Your task to perform on an android device: show emergency info Image 0: 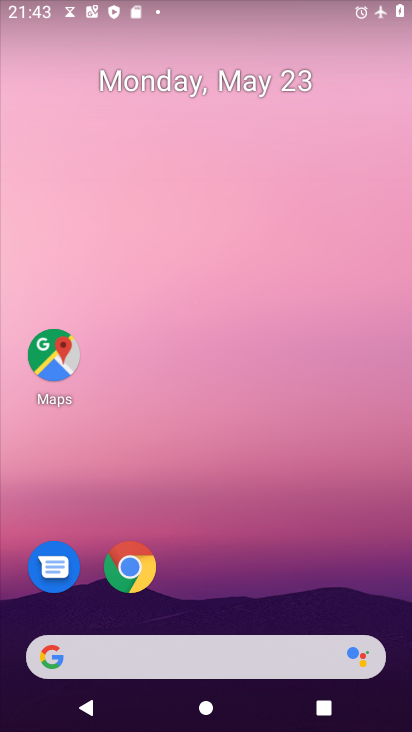
Step 0: drag from (234, 614) to (275, 290)
Your task to perform on an android device: show emergency info Image 1: 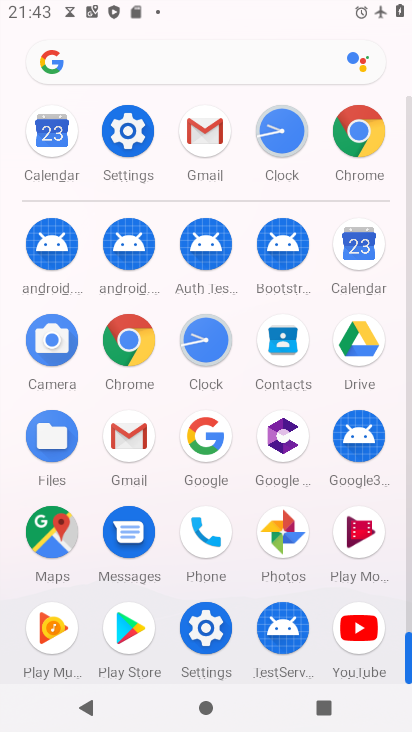
Step 1: click (131, 135)
Your task to perform on an android device: show emergency info Image 2: 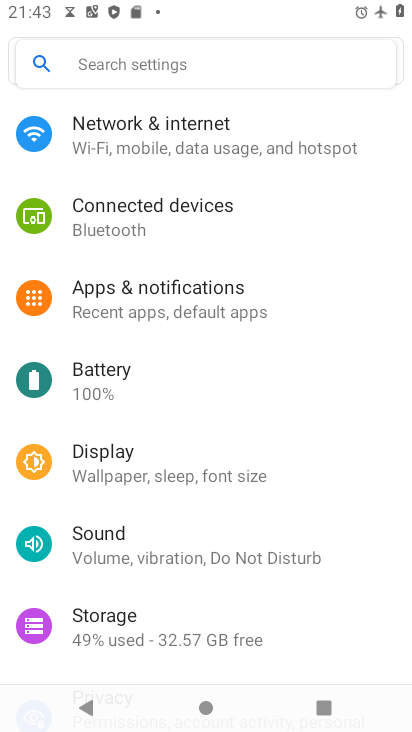
Step 2: drag from (243, 595) to (315, 134)
Your task to perform on an android device: show emergency info Image 3: 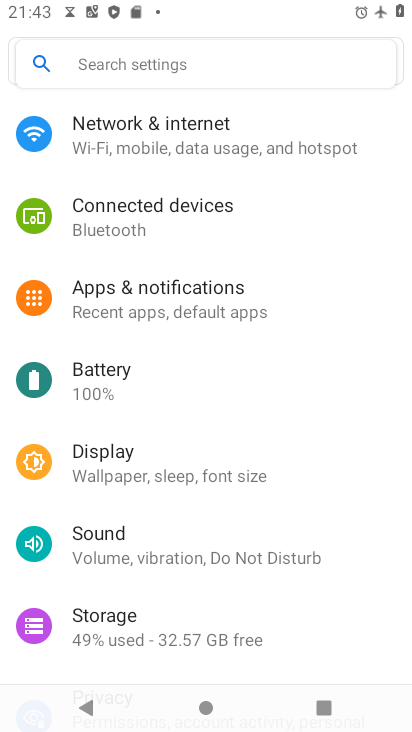
Step 3: drag from (275, 250) to (331, 3)
Your task to perform on an android device: show emergency info Image 4: 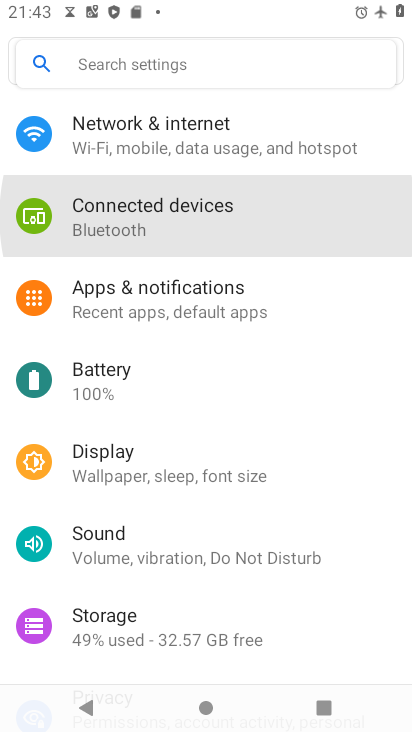
Step 4: click (309, 102)
Your task to perform on an android device: show emergency info Image 5: 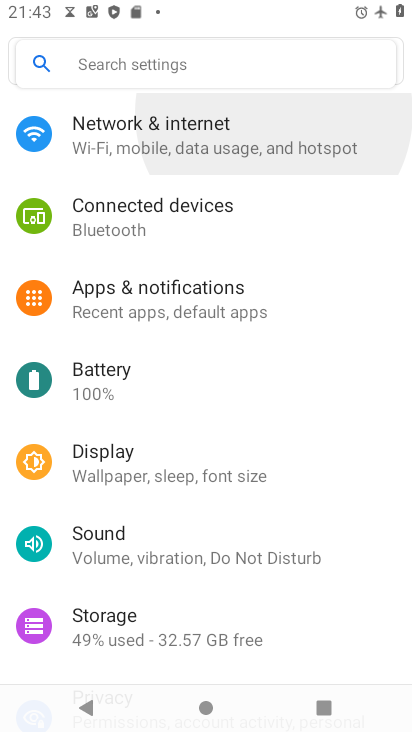
Step 5: drag from (213, 468) to (264, 193)
Your task to perform on an android device: show emergency info Image 6: 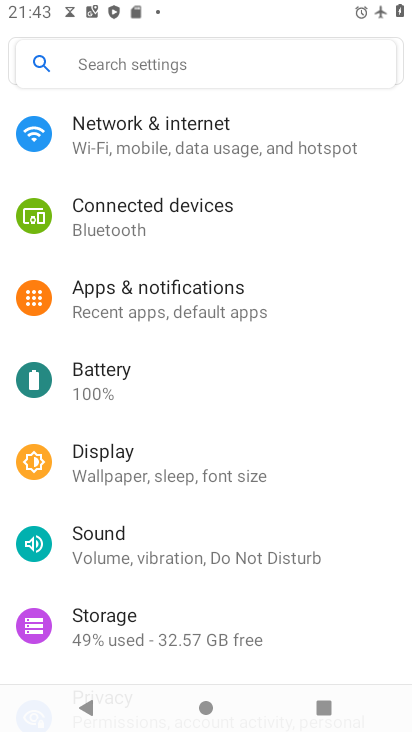
Step 6: drag from (221, 403) to (306, 205)
Your task to perform on an android device: show emergency info Image 7: 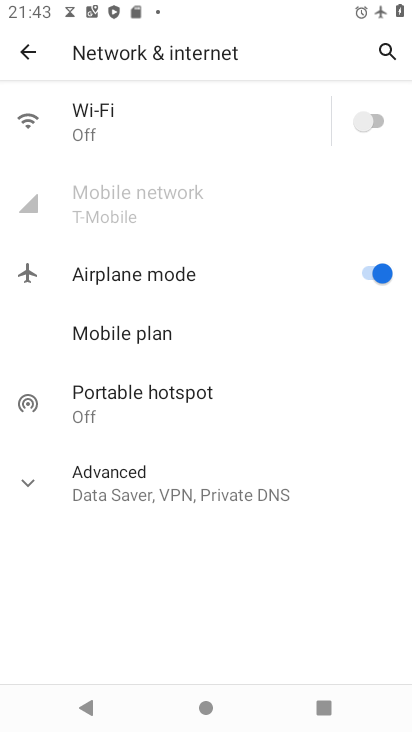
Step 7: drag from (249, 352) to (270, 221)
Your task to perform on an android device: show emergency info Image 8: 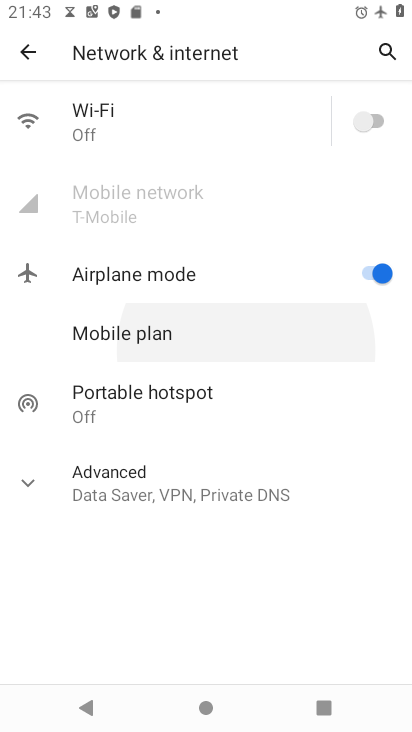
Step 8: drag from (253, 443) to (302, 209)
Your task to perform on an android device: show emergency info Image 9: 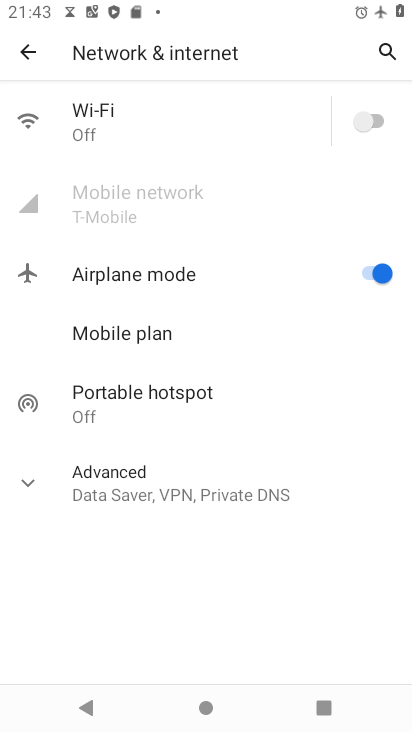
Step 9: click (33, 61)
Your task to perform on an android device: show emergency info Image 10: 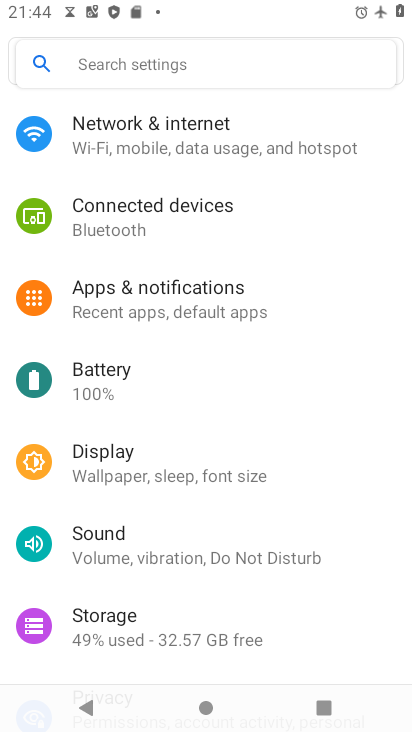
Step 10: drag from (202, 548) to (261, 187)
Your task to perform on an android device: show emergency info Image 11: 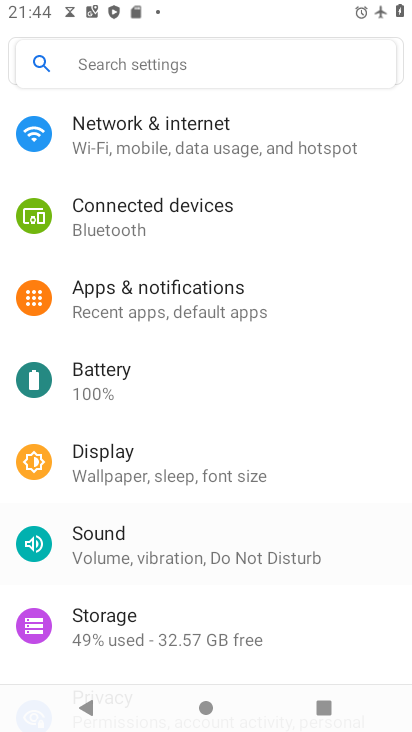
Step 11: drag from (233, 491) to (272, 318)
Your task to perform on an android device: show emergency info Image 12: 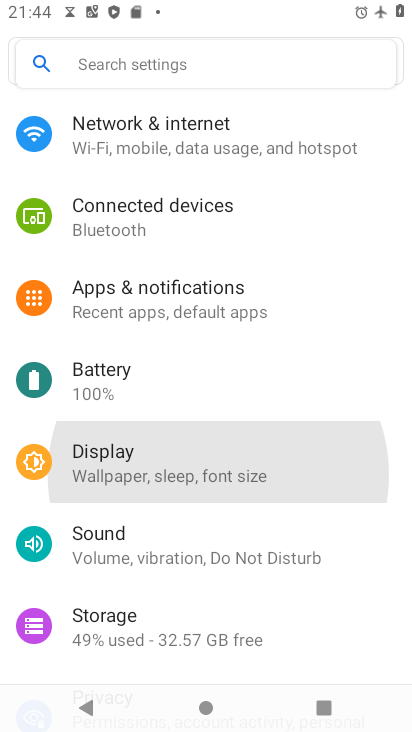
Step 12: click (254, 575)
Your task to perform on an android device: show emergency info Image 13: 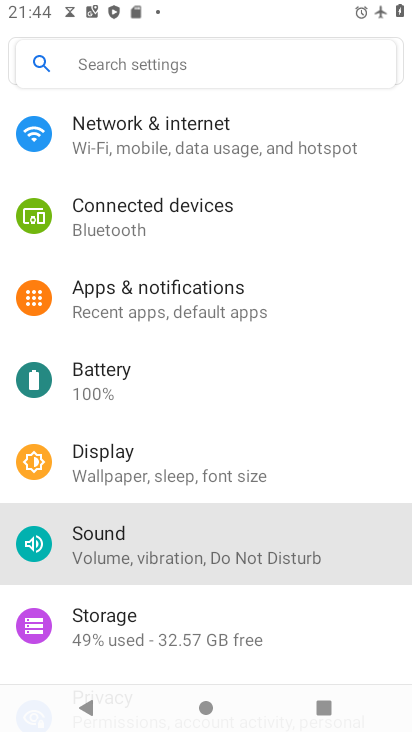
Step 13: click (254, 565)
Your task to perform on an android device: show emergency info Image 14: 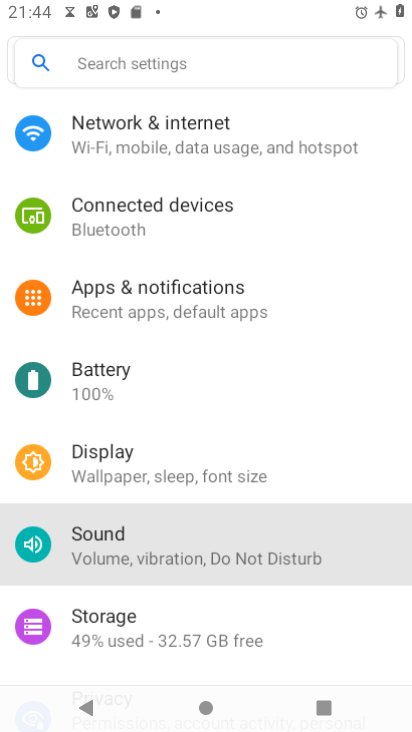
Step 14: drag from (212, 695) to (234, 463)
Your task to perform on an android device: show emergency info Image 15: 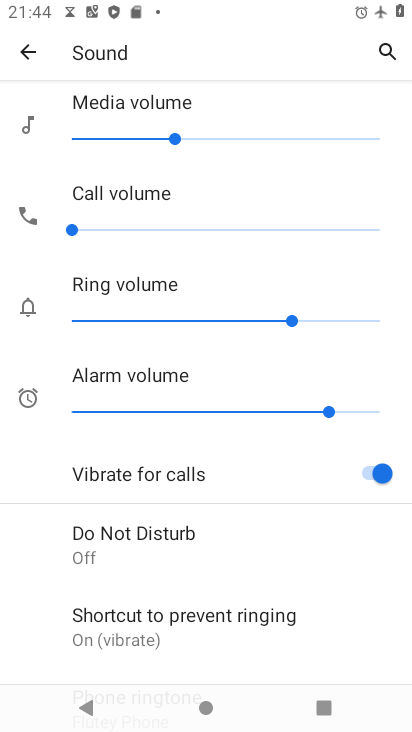
Step 15: click (31, 42)
Your task to perform on an android device: show emergency info Image 16: 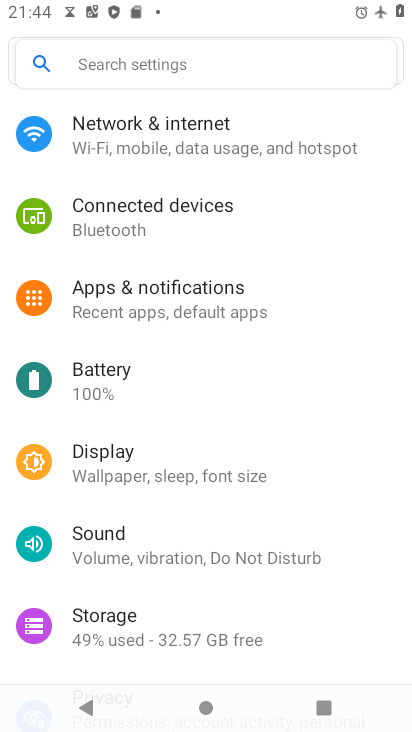
Step 16: drag from (265, 611) to (266, 339)
Your task to perform on an android device: show emergency info Image 17: 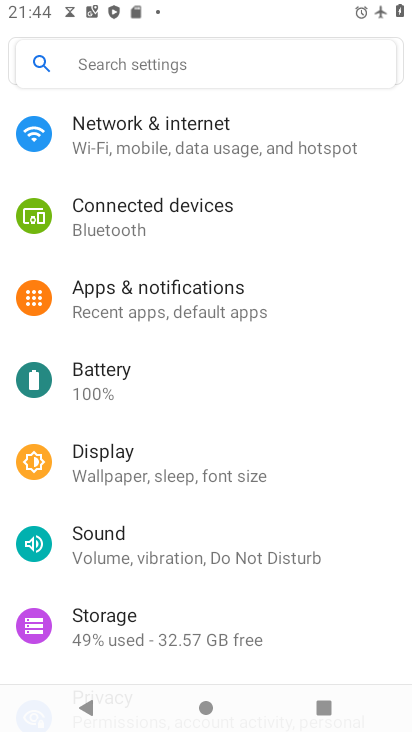
Step 17: click (232, 553)
Your task to perform on an android device: show emergency info Image 18: 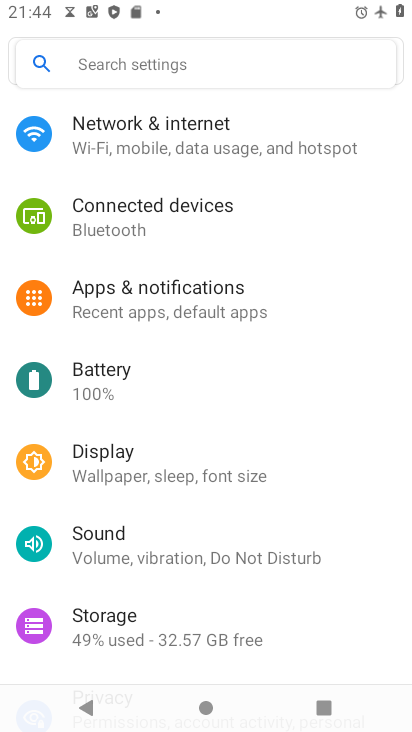
Step 18: drag from (215, 707) to (225, 401)
Your task to perform on an android device: show emergency info Image 19: 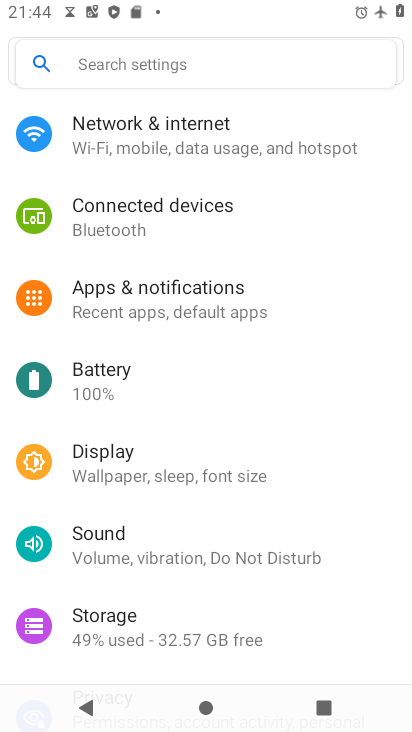
Step 19: drag from (191, 617) to (234, 305)
Your task to perform on an android device: show emergency info Image 20: 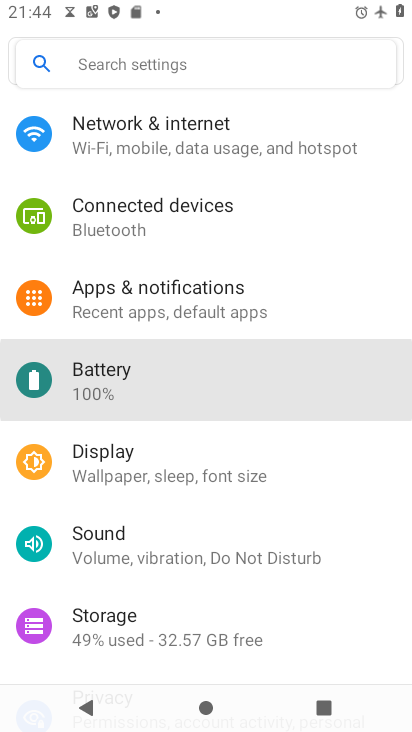
Step 20: drag from (240, 544) to (246, 360)
Your task to perform on an android device: show emergency info Image 21: 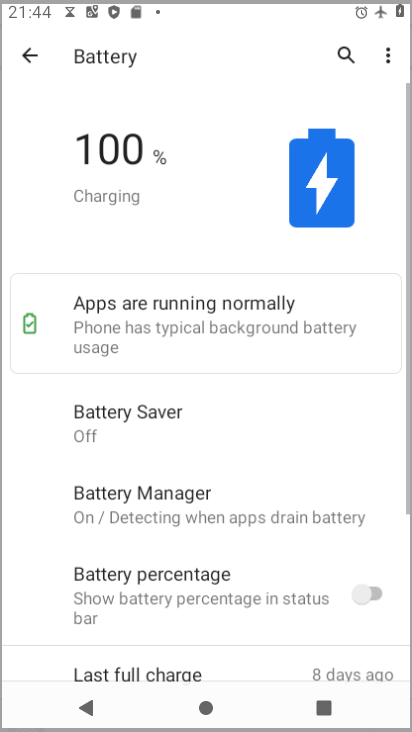
Step 21: drag from (216, 608) to (255, 312)
Your task to perform on an android device: show emergency info Image 22: 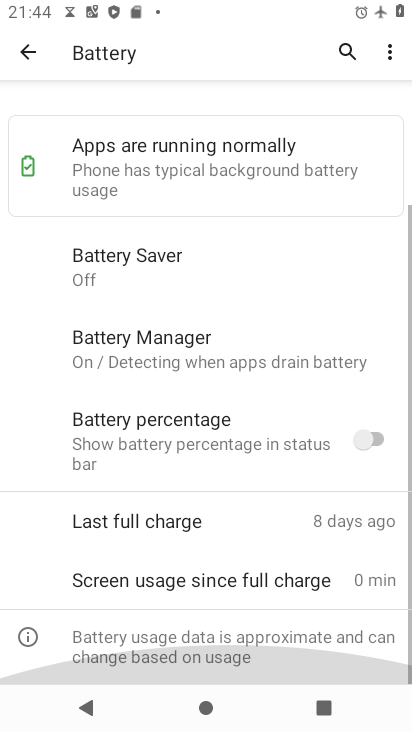
Step 22: drag from (203, 501) to (213, 335)
Your task to perform on an android device: show emergency info Image 23: 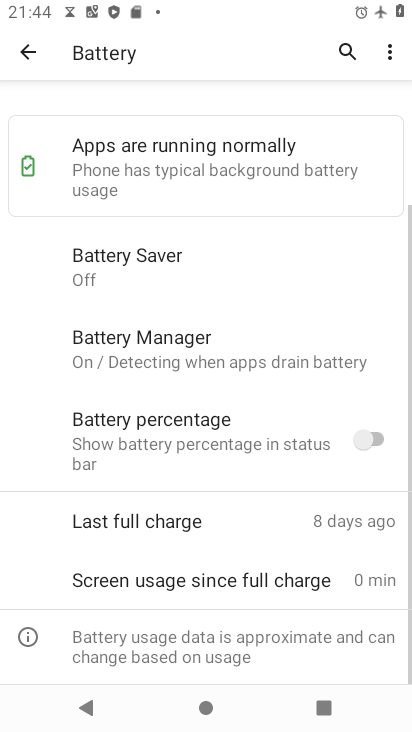
Step 23: click (33, 57)
Your task to perform on an android device: show emergency info Image 24: 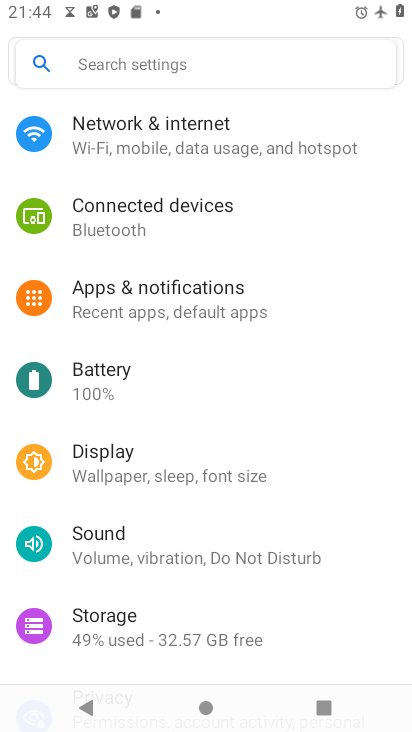
Step 24: drag from (273, 606) to (281, 243)
Your task to perform on an android device: show emergency info Image 25: 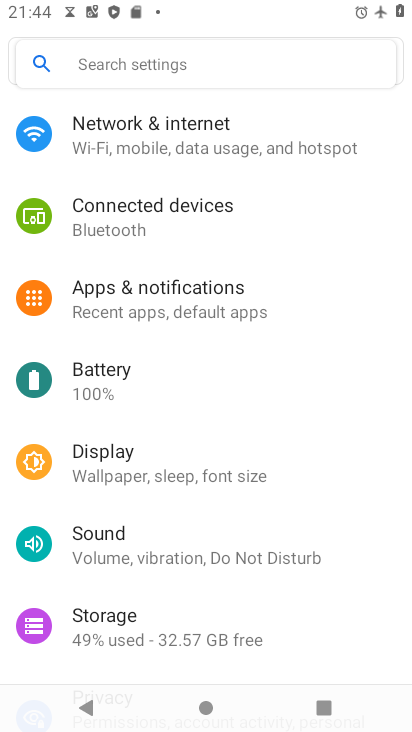
Step 25: drag from (235, 519) to (285, 219)
Your task to perform on an android device: show emergency info Image 26: 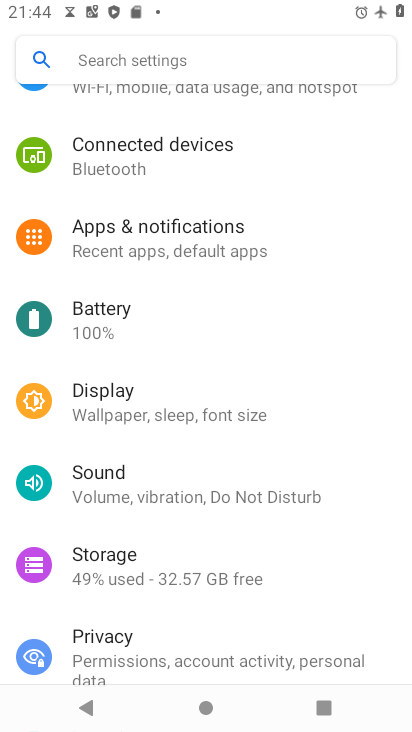
Step 26: drag from (275, 456) to (289, 256)
Your task to perform on an android device: show emergency info Image 27: 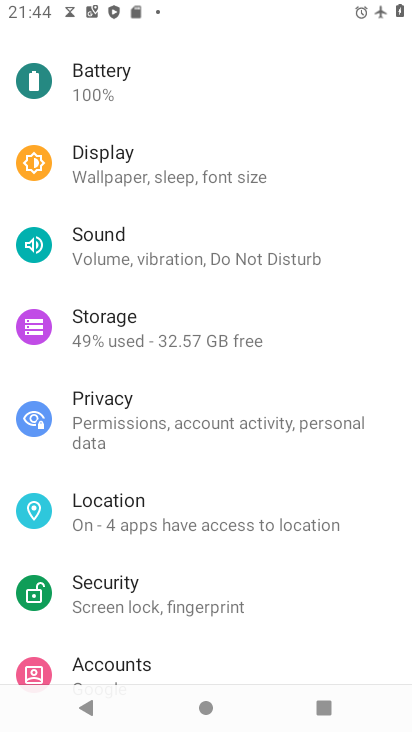
Step 27: drag from (269, 598) to (277, 244)
Your task to perform on an android device: show emergency info Image 28: 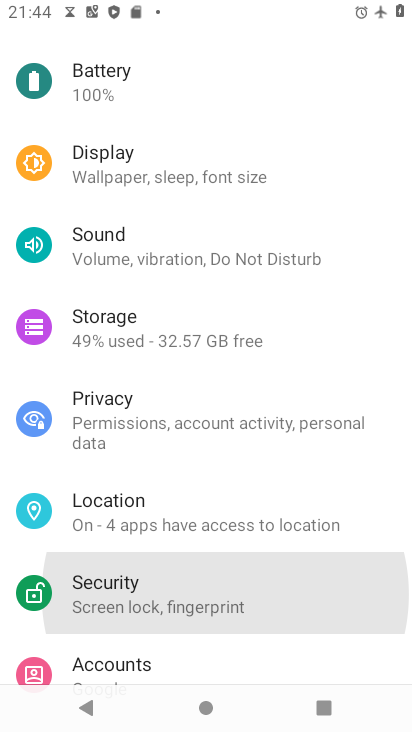
Step 28: drag from (195, 604) to (246, 207)
Your task to perform on an android device: show emergency info Image 29: 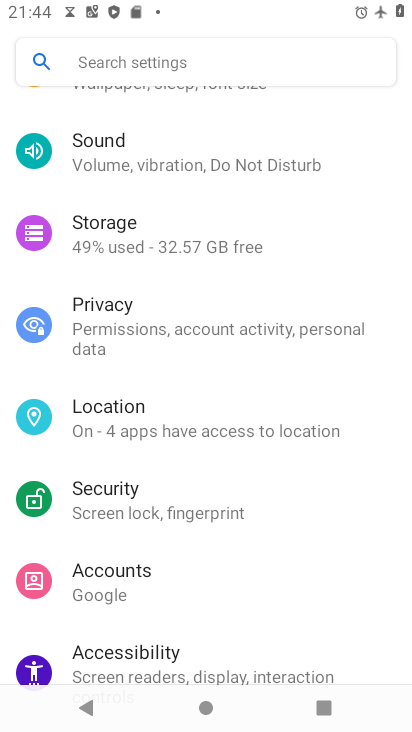
Step 29: drag from (163, 576) to (206, 376)
Your task to perform on an android device: show emergency info Image 30: 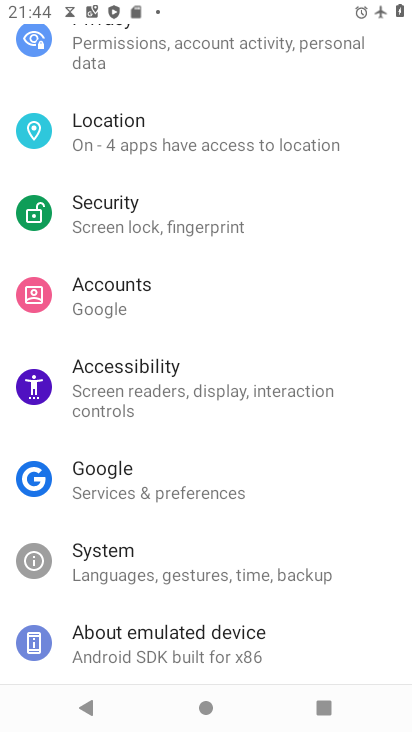
Step 30: click (155, 632)
Your task to perform on an android device: show emergency info Image 31: 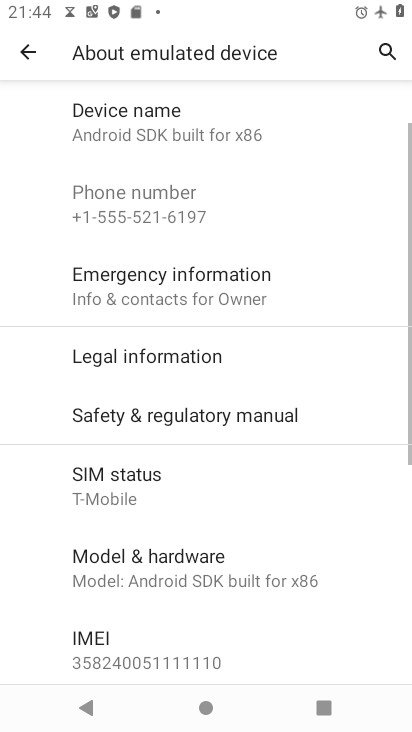
Step 31: click (146, 289)
Your task to perform on an android device: show emergency info Image 32: 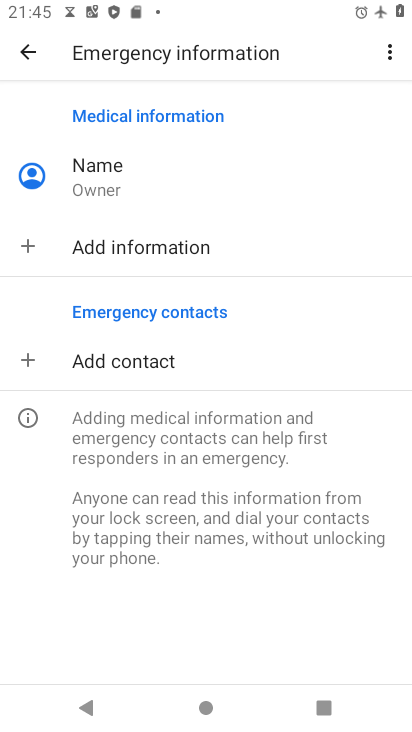
Step 32: task complete